Your task to perform on an android device: Clear the cart on bestbuy. Image 0: 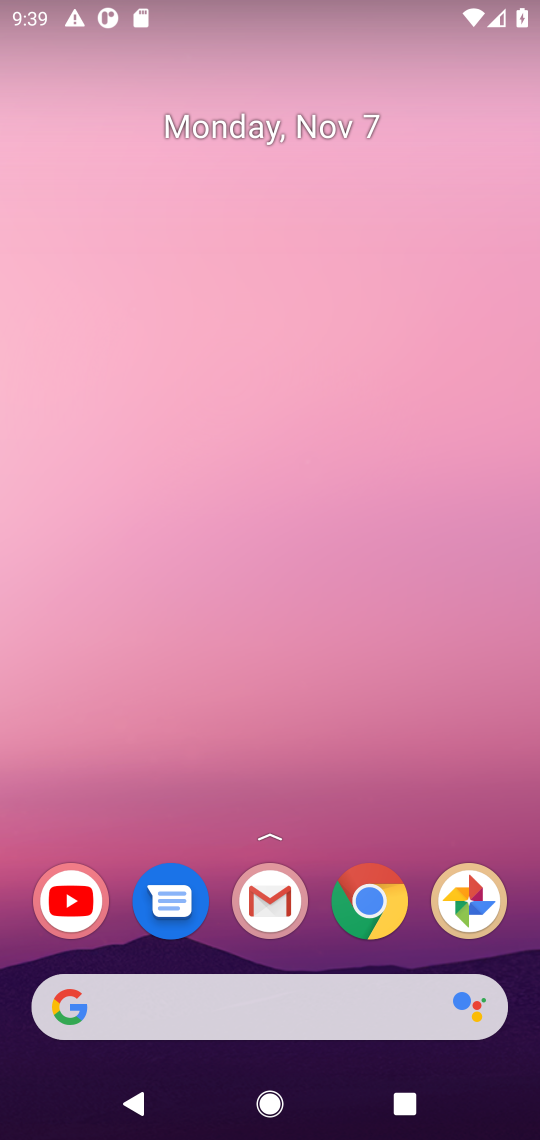
Step 0: click (373, 907)
Your task to perform on an android device: Clear the cart on bestbuy. Image 1: 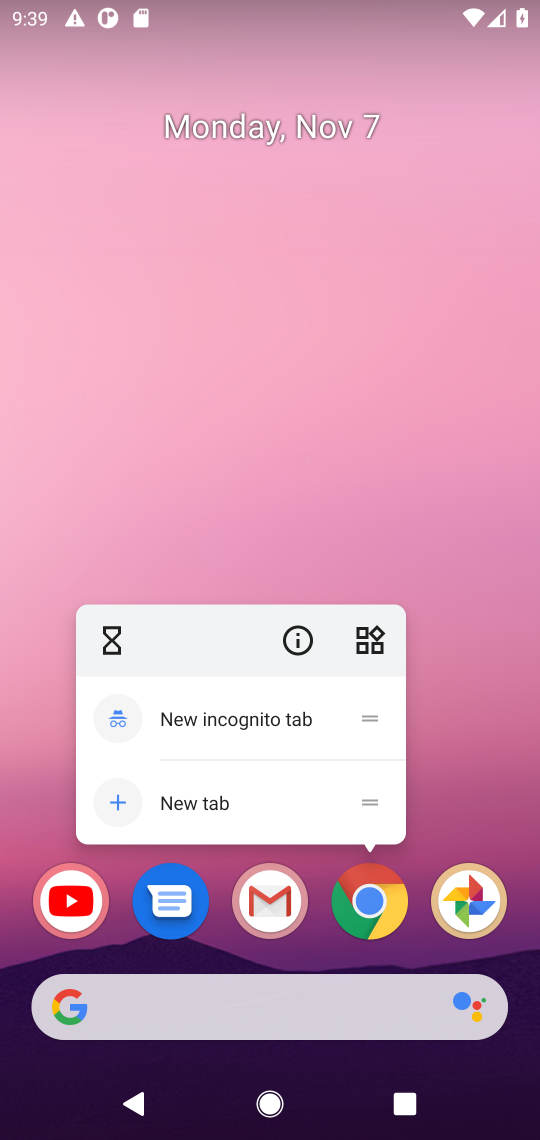
Step 1: click (373, 907)
Your task to perform on an android device: Clear the cart on bestbuy. Image 2: 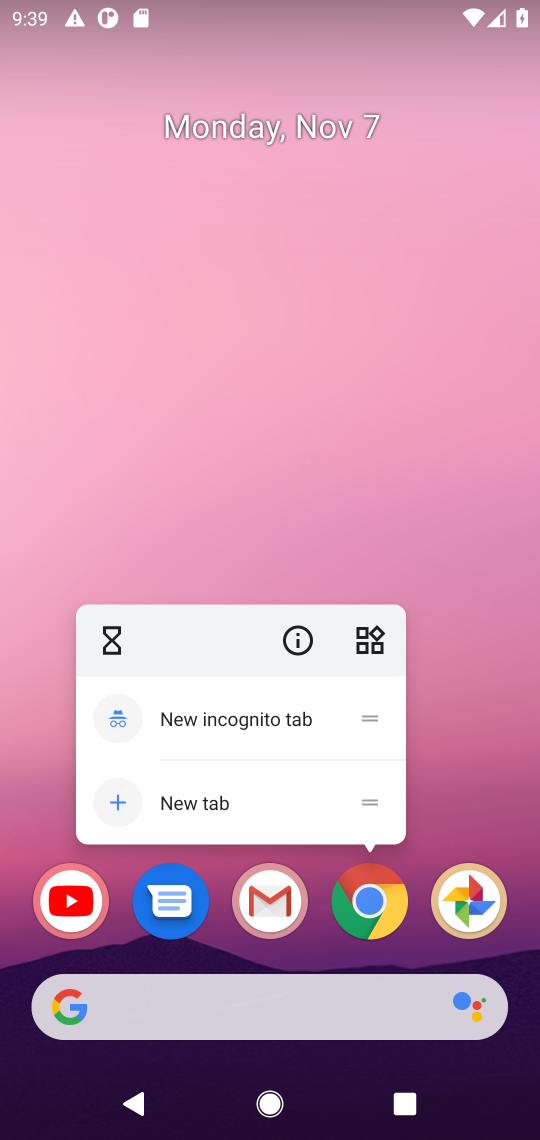
Step 2: click (373, 907)
Your task to perform on an android device: Clear the cart on bestbuy. Image 3: 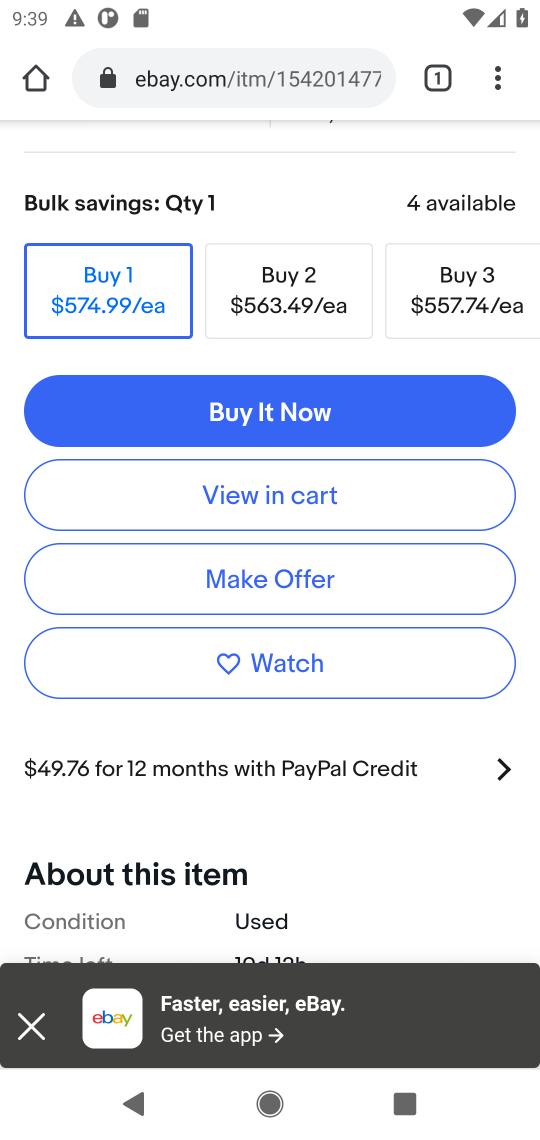
Step 3: click (195, 92)
Your task to perform on an android device: Clear the cart on bestbuy. Image 4: 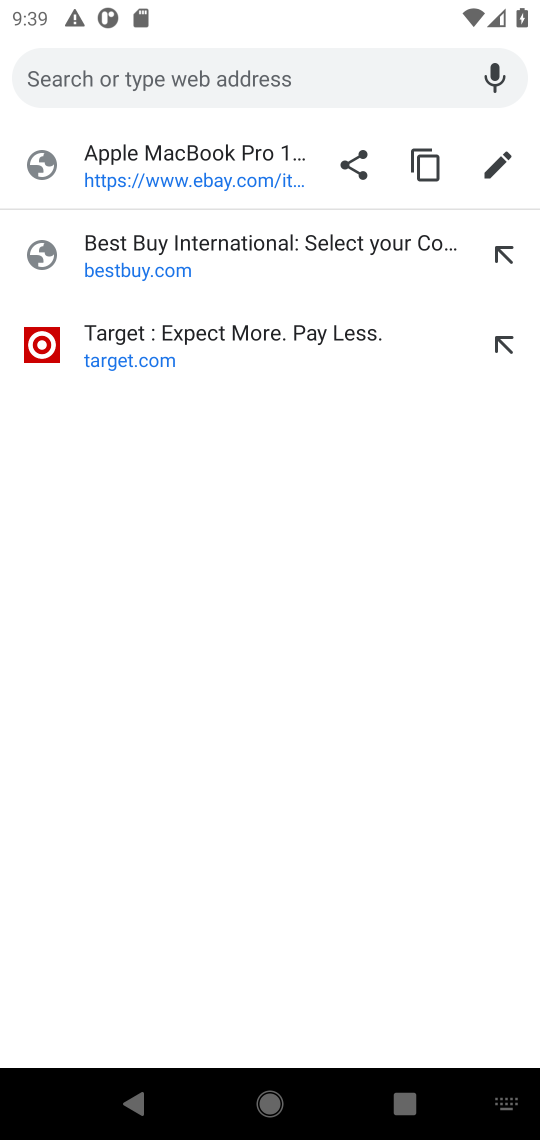
Step 4: type "bestbuy"
Your task to perform on an android device: Clear the cart on bestbuy. Image 5: 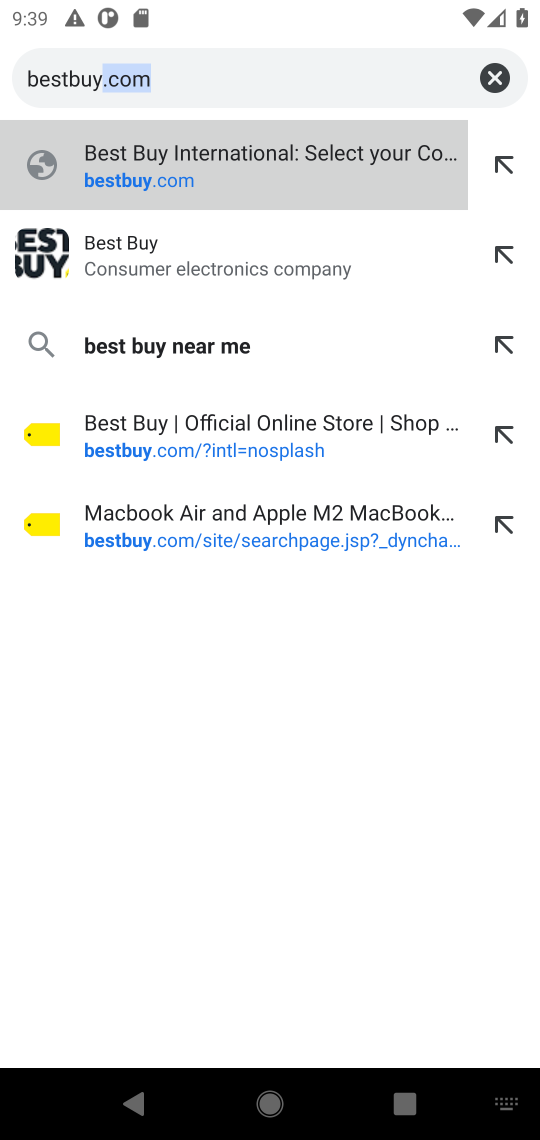
Step 5: click (299, 154)
Your task to perform on an android device: Clear the cart on bestbuy. Image 6: 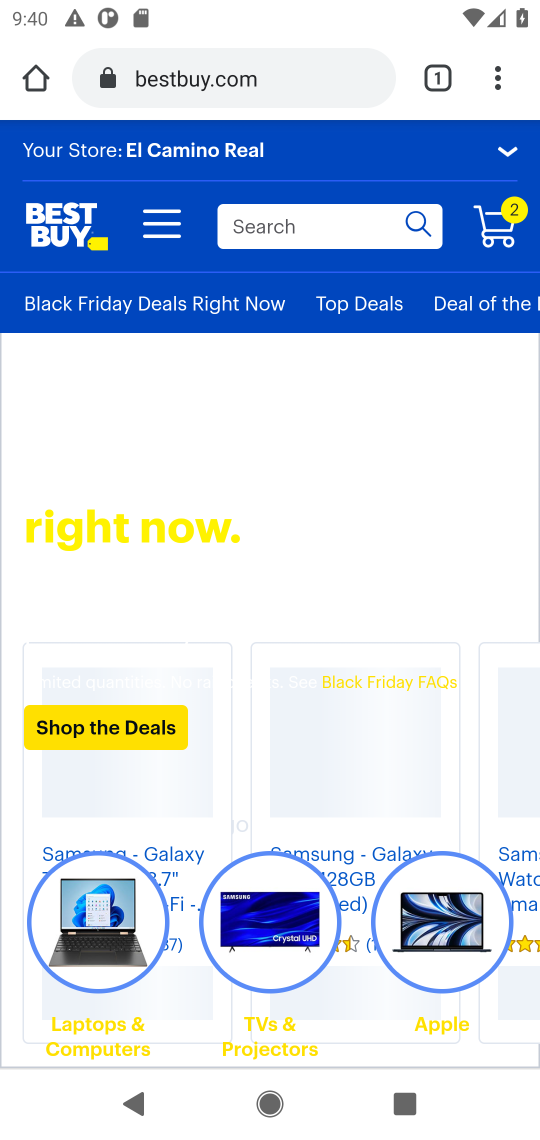
Step 6: click (496, 255)
Your task to perform on an android device: Clear the cart on bestbuy. Image 7: 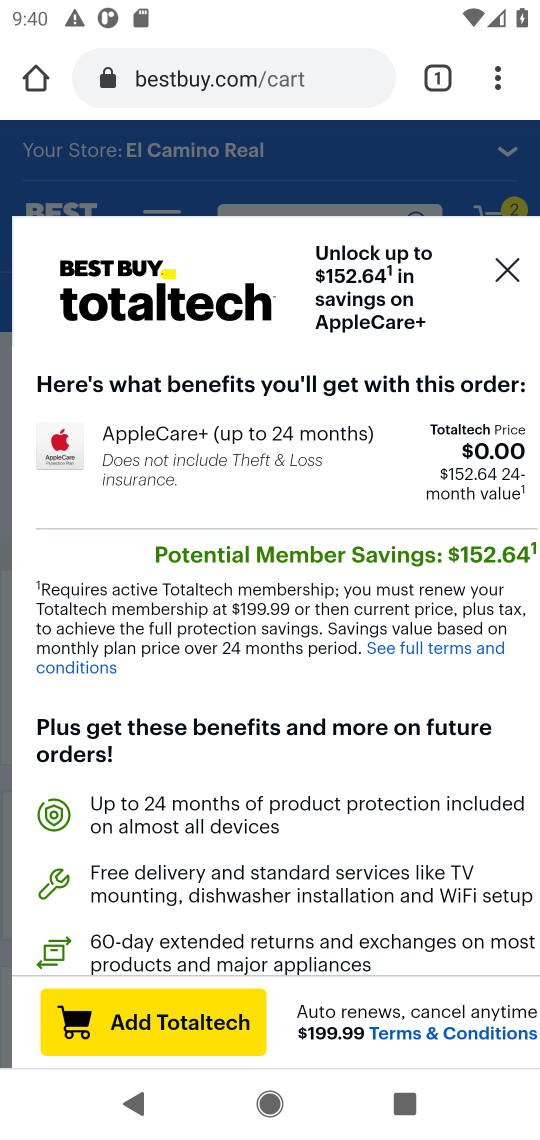
Step 7: click (523, 272)
Your task to perform on an android device: Clear the cart on bestbuy. Image 8: 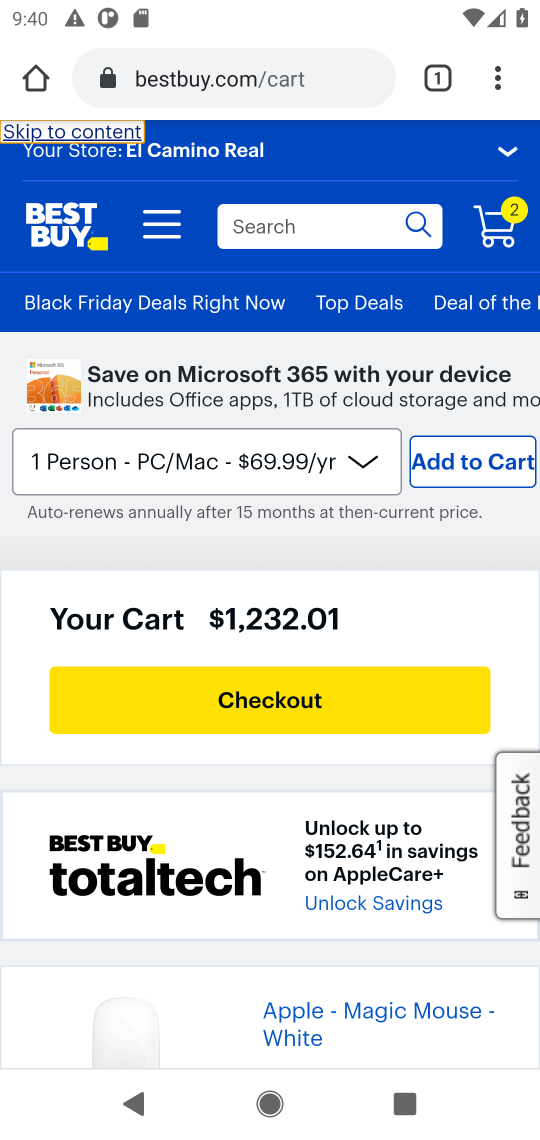
Step 8: drag from (191, 862) to (149, 451)
Your task to perform on an android device: Clear the cart on bestbuy. Image 9: 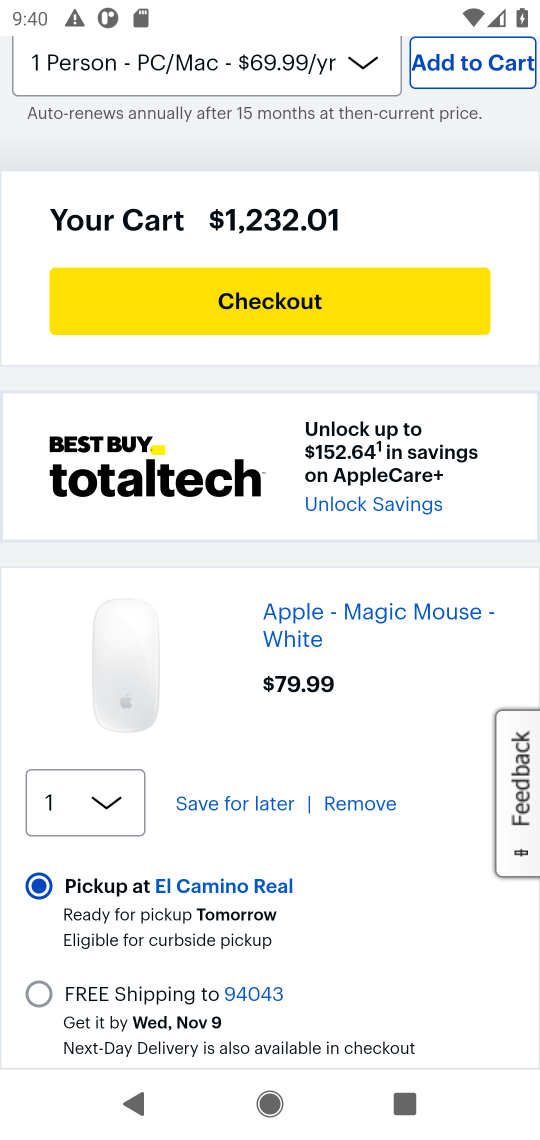
Step 9: click (337, 796)
Your task to perform on an android device: Clear the cart on bestbuy. Image 10: 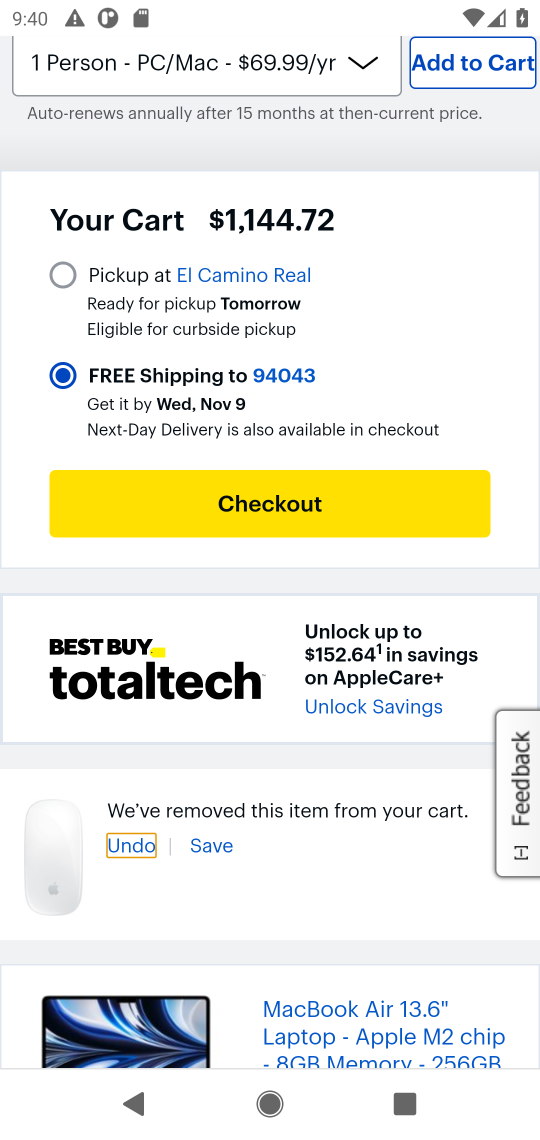
Step 10: drag from (375, 837) to (306, 464)
Your task to perform on an android device: Clear the cart on bestbuy. Image 11: 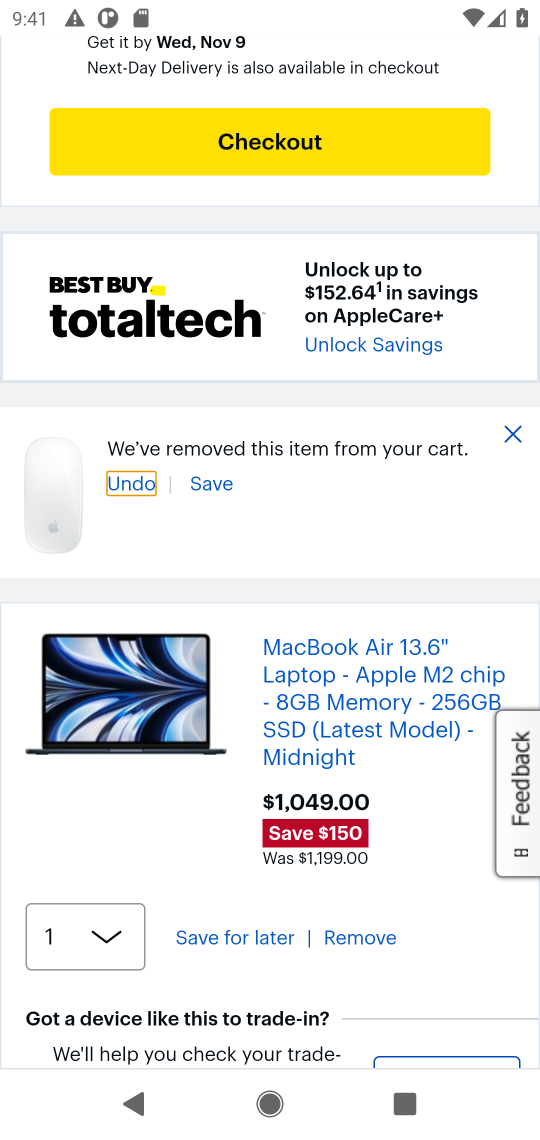
Step 11: click (356, 943)
Your task to perform on an android device: Clear the cart on bestbuy. Image 12: 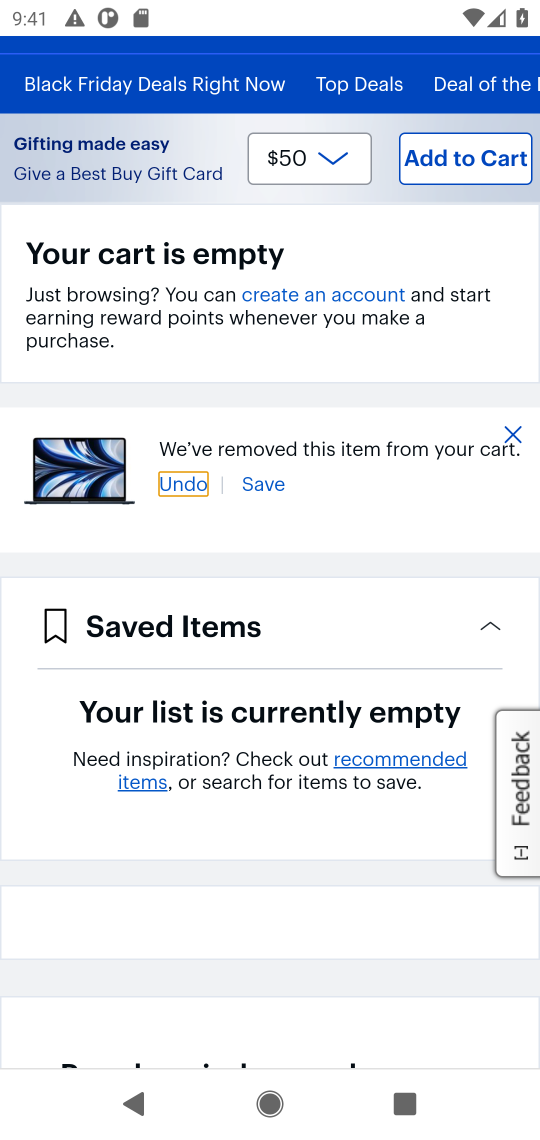
Step 12: task complete